Your task to perform on an android device: Search for Mexican restaurants on Maps Image 0: 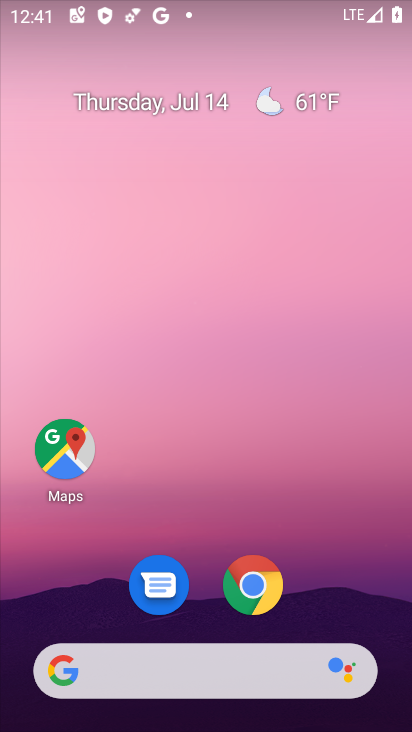
Step 0: click (58, 462)
Your task to perform on an android device: Search for Mexican restaurants on Maps Image 1: 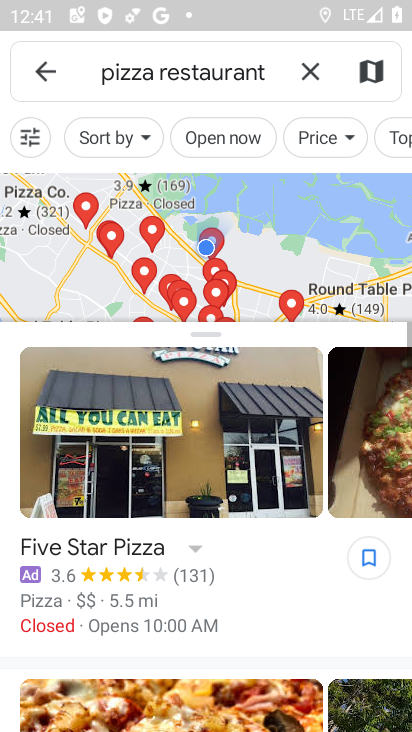
Step 1: click (310, 66)
Your task to perform on an android device: Search for Mexican restaurants on Maps Image 2: 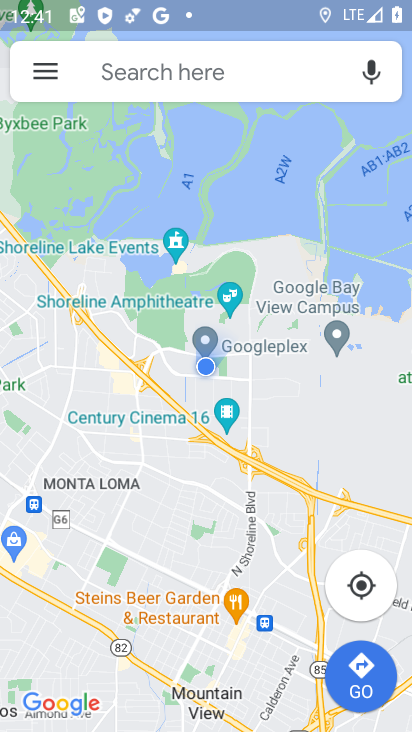
Step 2: click (166, 77)
Your task to perform on an android device: Search for Mexican restaurants on Maps Image 3: 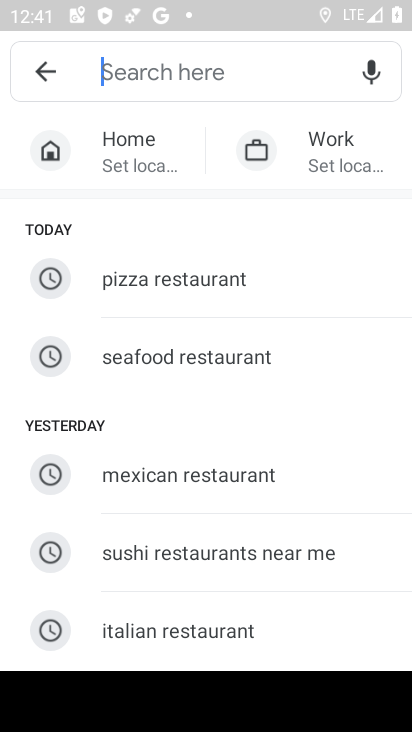
Step 3: click (200, 472)
Your task to perform on an android device: Search for Mexican restaurants on Maps Image 4: 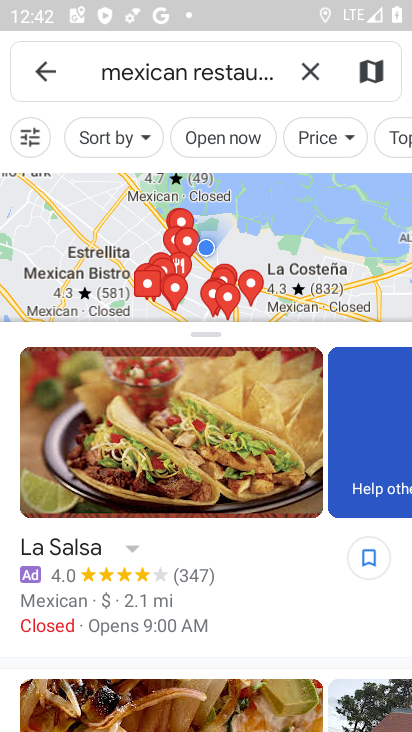
Step 4: task complete